Your task to perform on an android device: create a new album in the google photos Image 0: 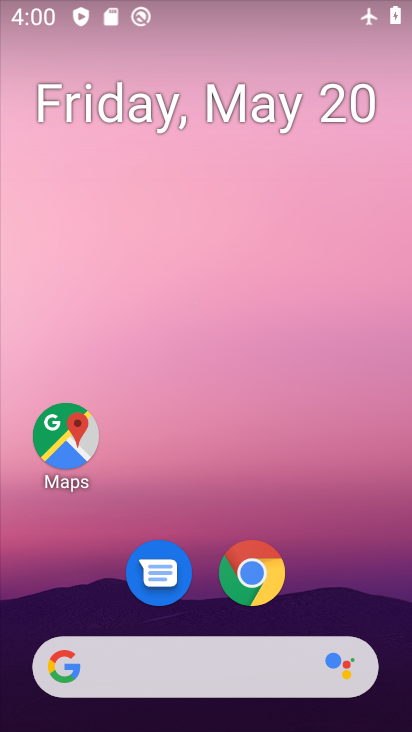
Step 0: drag from (374, 576) to (274, 167)
Your task to perform on an android device: create a new album in the google photos Image 1: 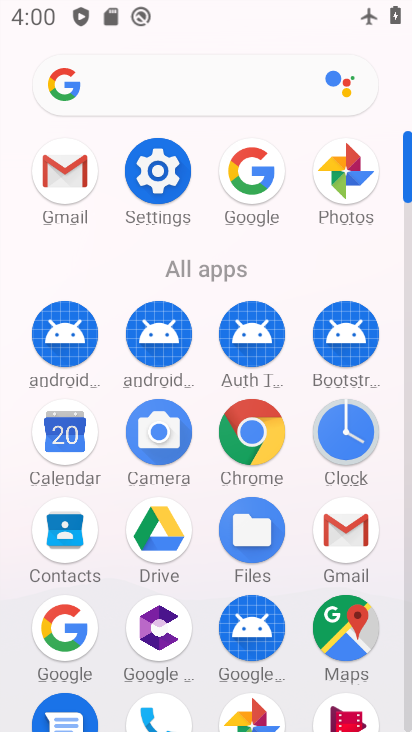
Step 1: click (357, 185)
Your task to perform on an android device: create a new album in the google photos Image 2: 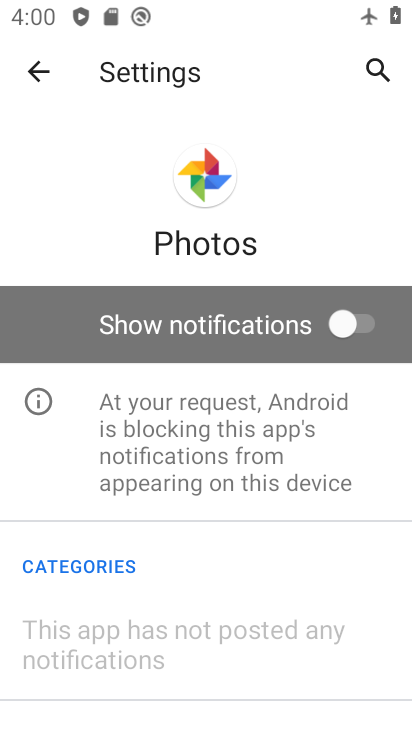
Step 2: click (44, 76)
Your task to perform on an android device: create a new album in the google photos Image 3: 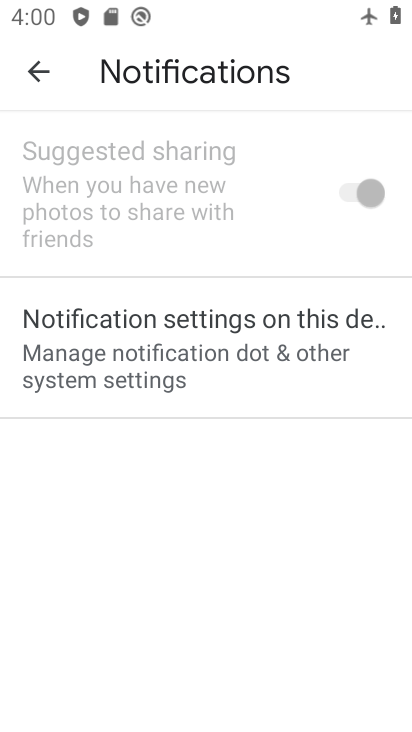
Step 3: click (44, 76)
Your task to perform on an android device: create a new album in the google photos Image 4: 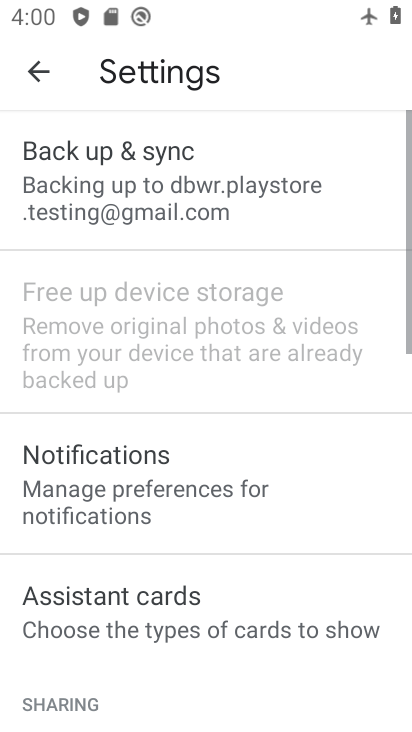
Step 4: click (44, 76)
Your task to perform on an android device: create a new album in the google photos Image 5: 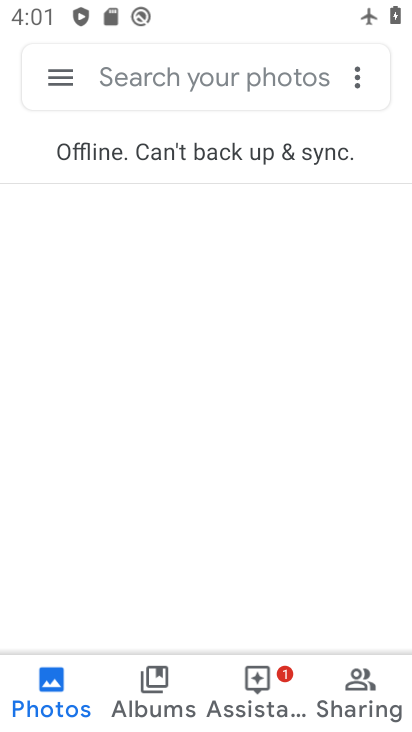
Step 5: drag from (260, 4) to (249, 681)
Your task to perform on an android device: create a new album in the google photos Image 6: 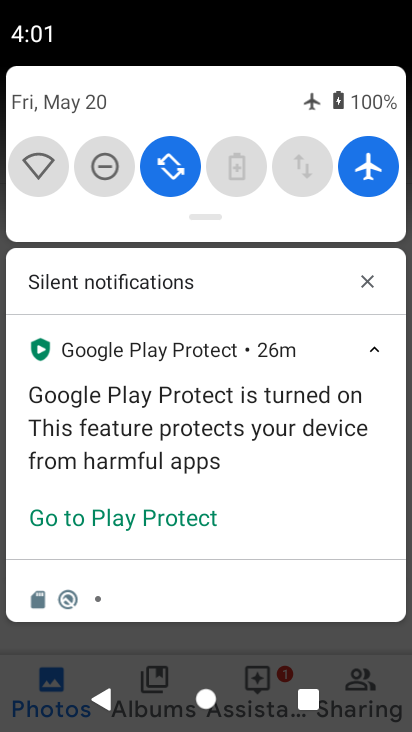
Step 6: click (366, 184)
Your task to perform on an android device: create a new album in the google photos Image 7: 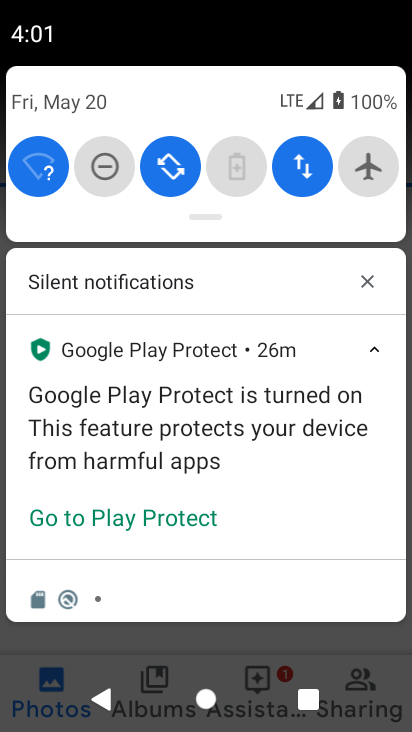
Step 7: click (391, 635)
Your task to perform on an android device: create a new album in the google photos Image 8: 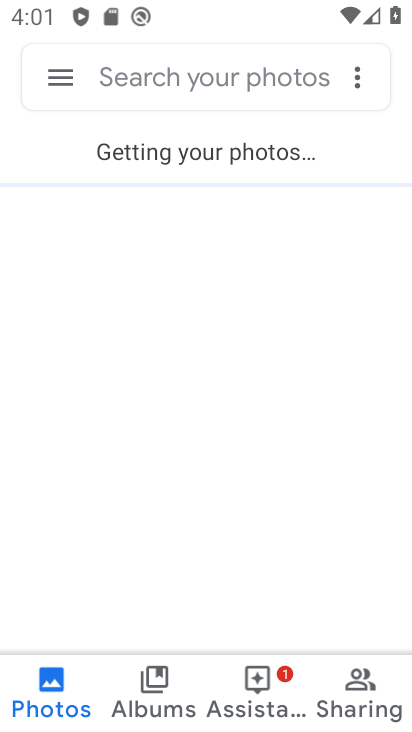
Step 8: click (173, 680)
Your task to perform on an android device: create a new album in the google photos Image 9: 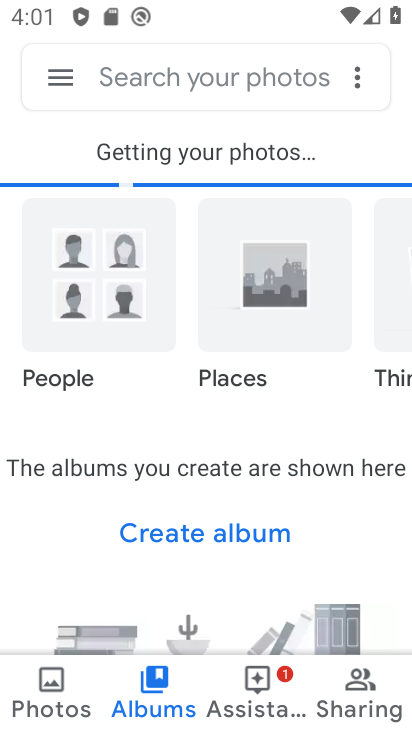
Step 9: click (226, 539)
Your task to perform on an android device: create a new album in the google photos Image 10: 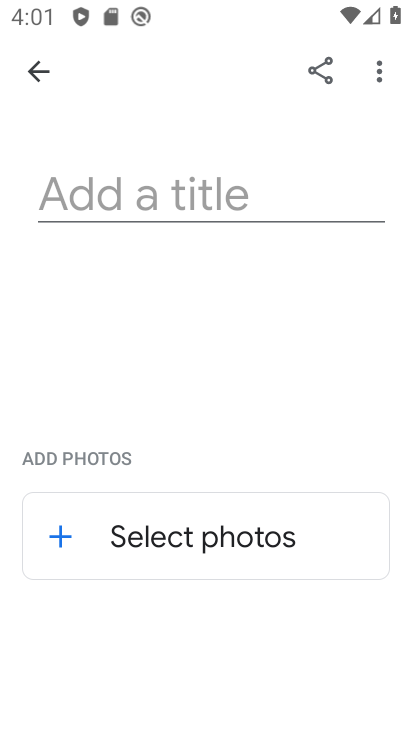
Step 10: click (238, 200)
Your task to perform on an android device: create a new album in the google photos Image 11: 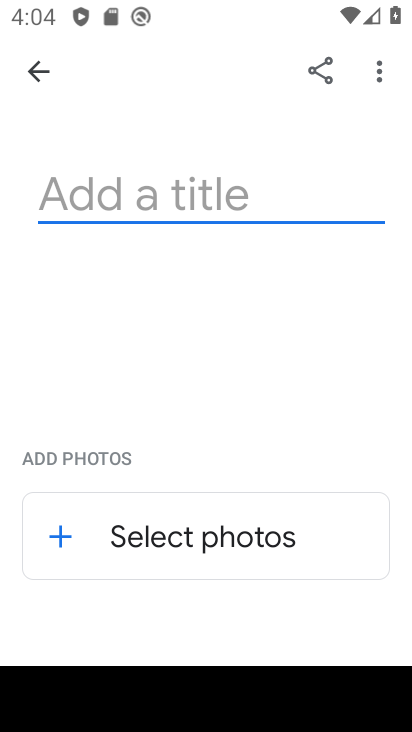
Step 11: type "bhbhhkbkhbk"
Your task to perform on an android device: create a new album in the google photos Image 12: 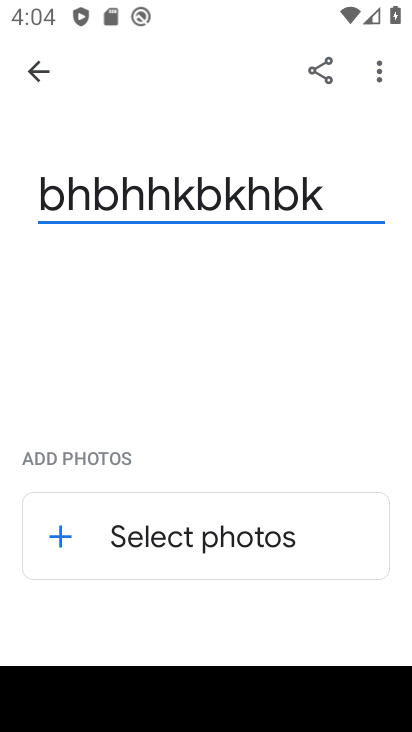
Step 12: click (267, 545)
Your task to perform on an android device: create a new album in the google photos Image 13: 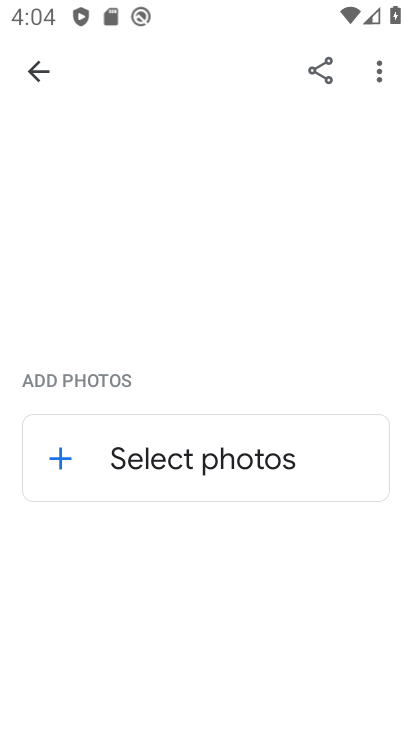
Step 13: click (229, 478)
Your task to perform on an android device: create a new album in the google photos Image 14: 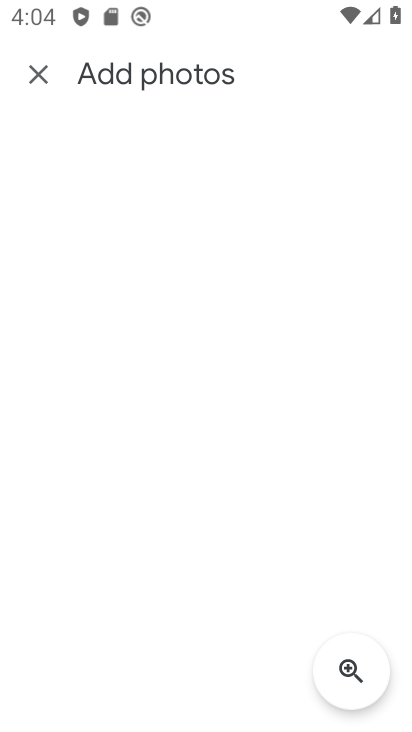
Step 14: task complete